Your task to perform on an android device: Go to Google Image 0: 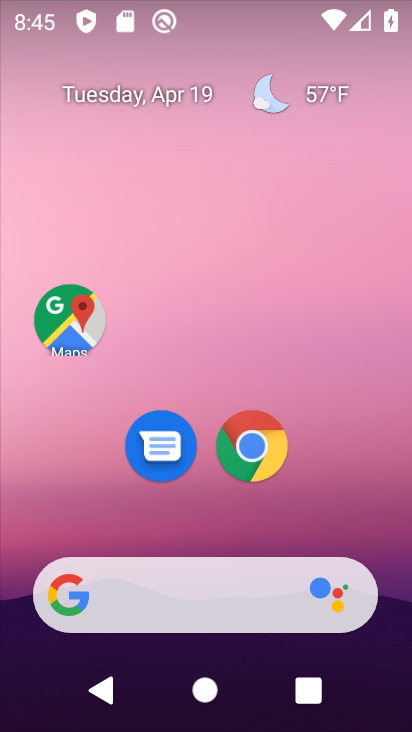
Step 0: drag from (316, 472) to (308, 109)
Your task to perform on an android device: Go to Google Image 1: 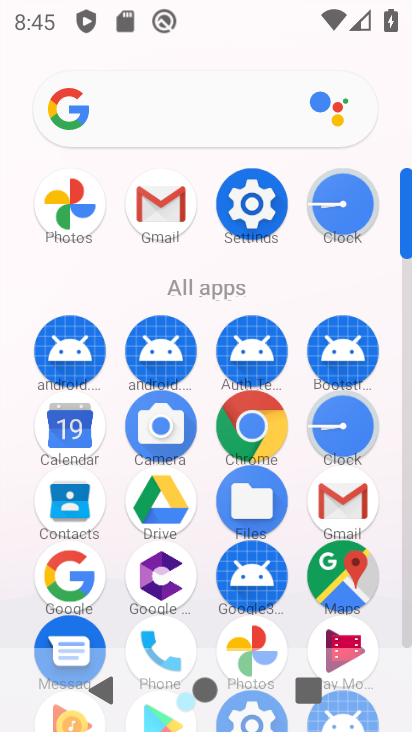
Step 1: click (62, 575)
Your task to perform on an android device: Go to Google Image 2: 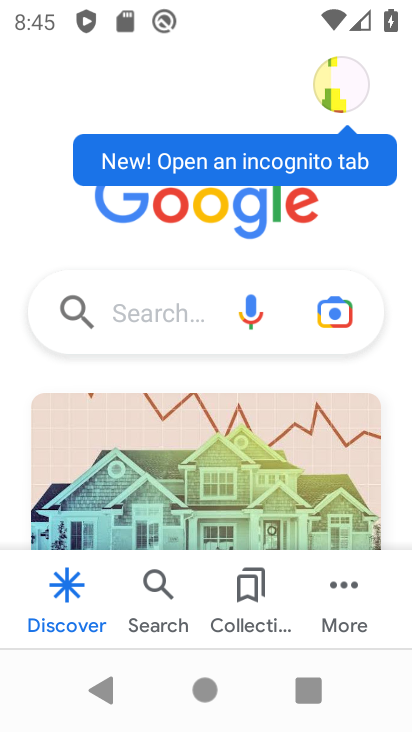
Step 2: task complete